Your task to perform on an android device: Show me popular games on the Play Store Image 0: 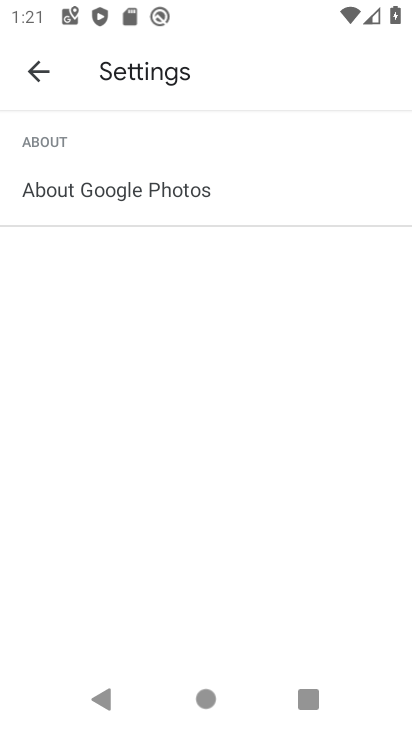
Step 0: press home button
Your task to perform on an android device: Show me popular games on the Play Store Image 1: 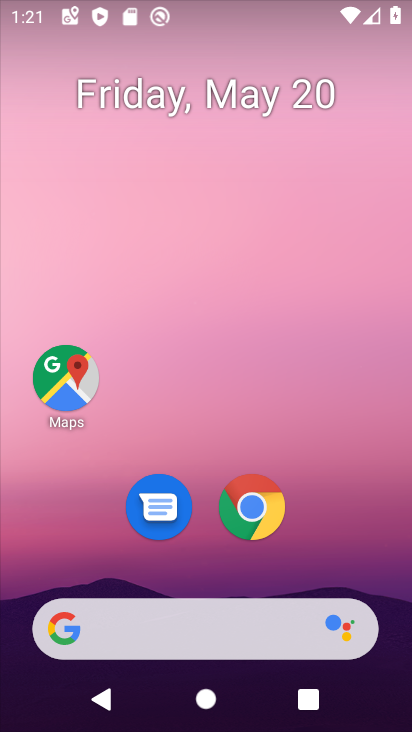
Step 1: drag from (241, 728) to (202, 165)
Your task to perform on an android device: Show me popular games on the Play Store Image 2: 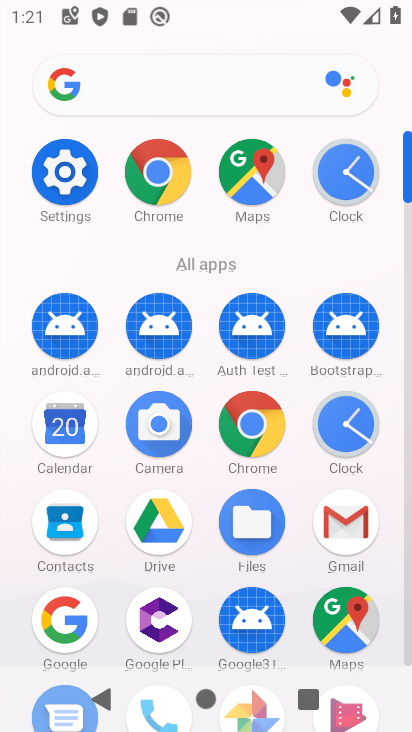
Step 2: drag from (123, 638) to (129, 310)
Your task to perform on an android device: Show me popular games on the Play Store Image 3: 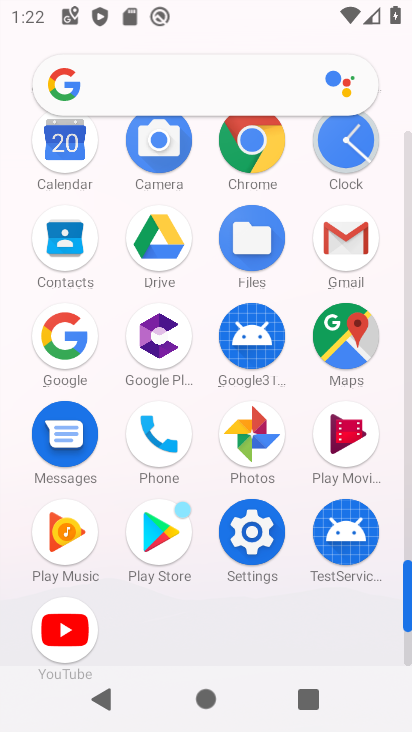
Step 3: click (159, 532)
Your task to perform on an android device: Show me popular games on the Play Store Image 4: 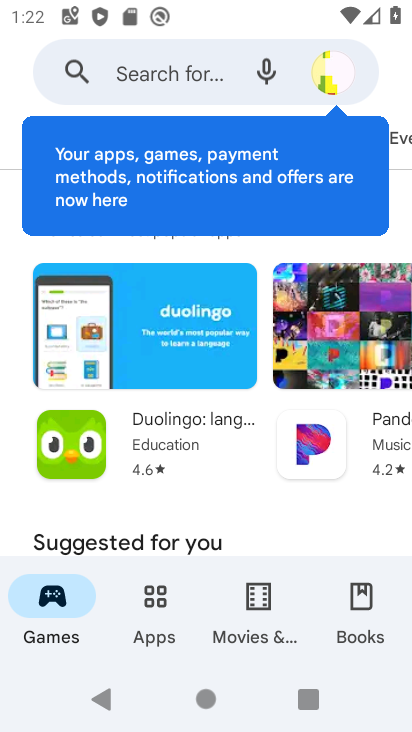
Step 4: drag from (200, 534) to (203, 155)
Your task to perform on an android device: Show me popular games on the Play Store Image 5: 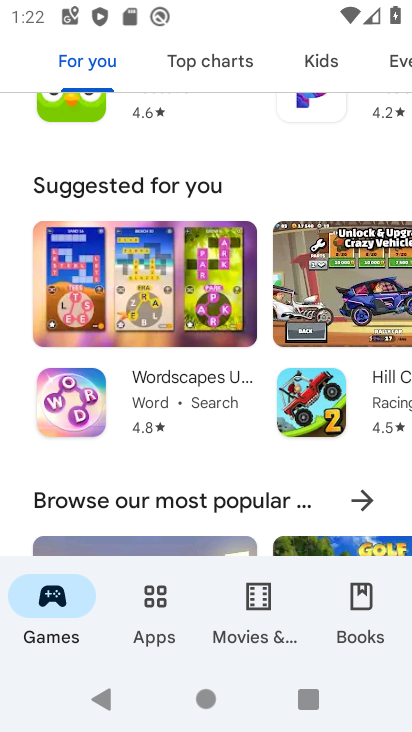
Step 5: drag from (246, 486) to (231, 175)
Your task to perform on an android device: Show me popular games on the Play Store Image 6: 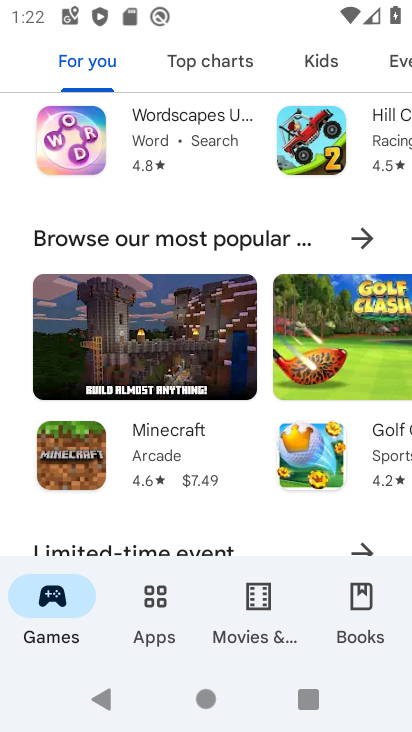
Step 6: click (354, 243)
Your task to perform on an android device: Show me popular games on the Play Store Image 7: 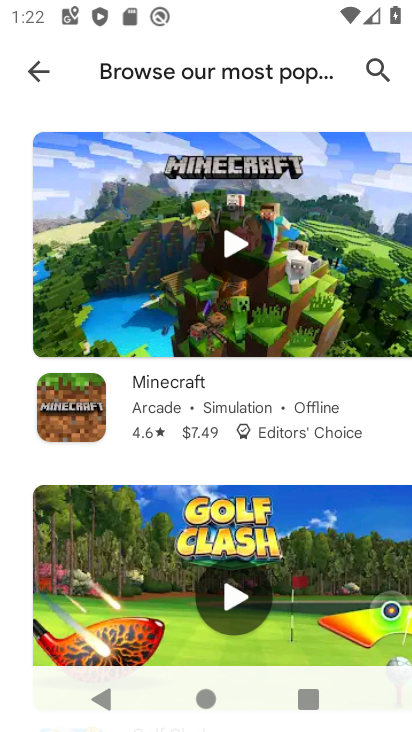
Step 7: task complete